Your task to perform on an android device: turn on the 12-hour format for clock Image 0: 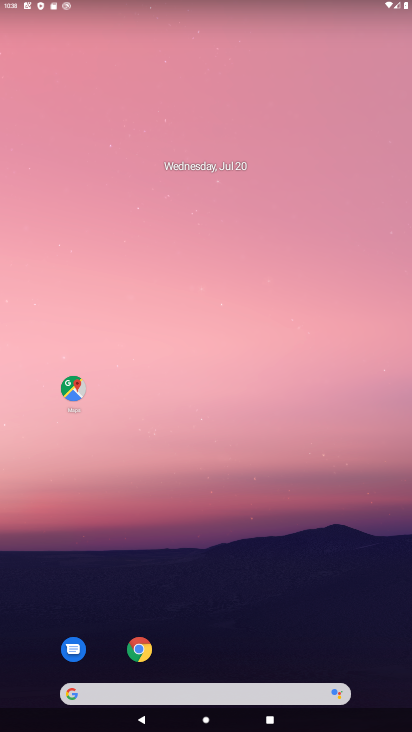
Step 0: drag from (295, 637) to (291, 139)
Your task to perform on an android device: turn on the 12-hour format for clock Image 1: 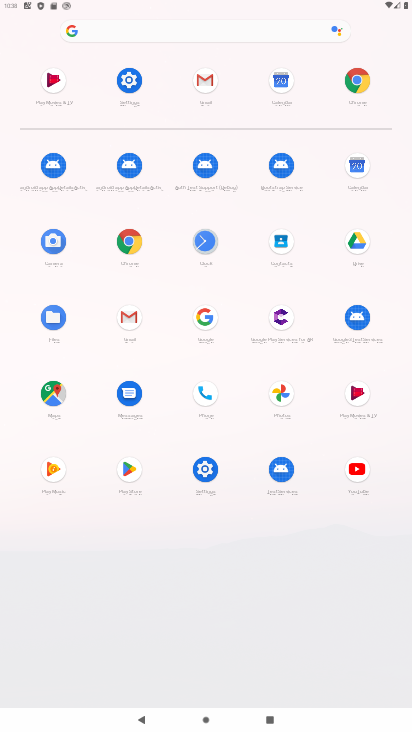
Step 1: click (206, 261)
Your task to perform on an android device: turn on the 12-hour format for clock Image 2: 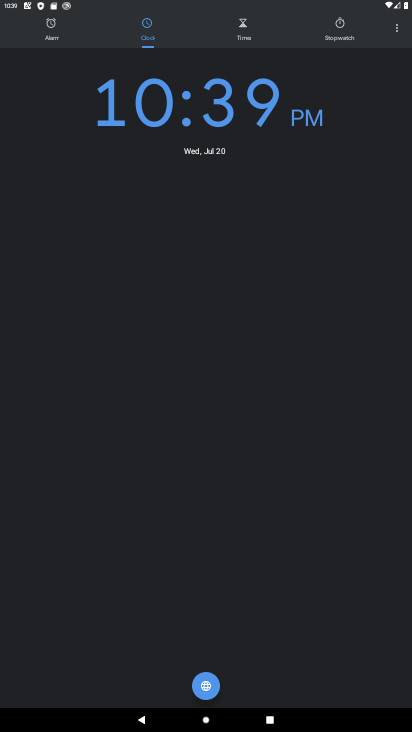
Step 2: click (387, 37)
Your task to perform on an android device: turn on the 12-hour format for clock Image 3: 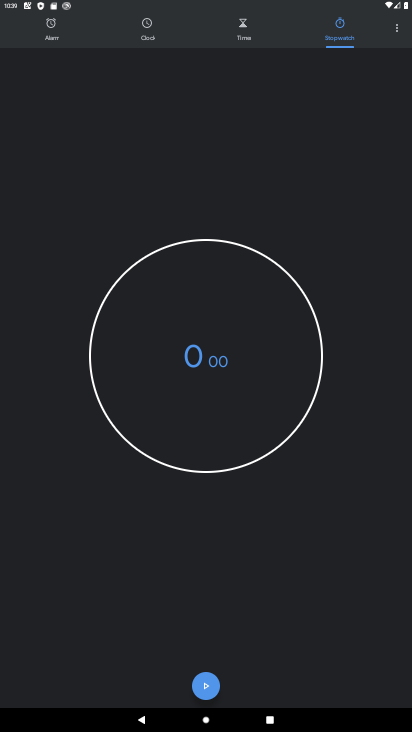
Step 3: click (397, 37)
Your task to perform on an android device: turn on the 12-hour format for clock Image 4: 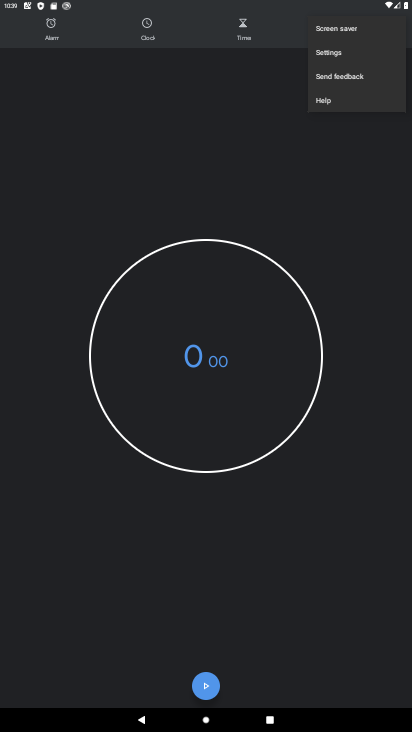
Step 4: click (332, 59)
Your task to perform on an android device: turn on the 12-hour format for clock Image 5: 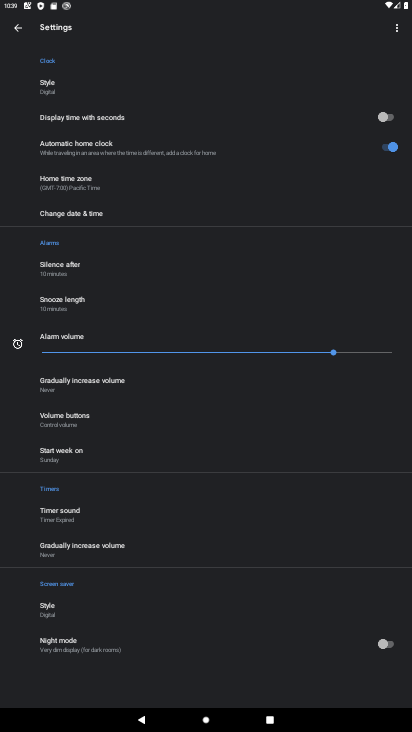
Step 5: task complete